Your task to perform on an android device: turn on wifi Image 0: 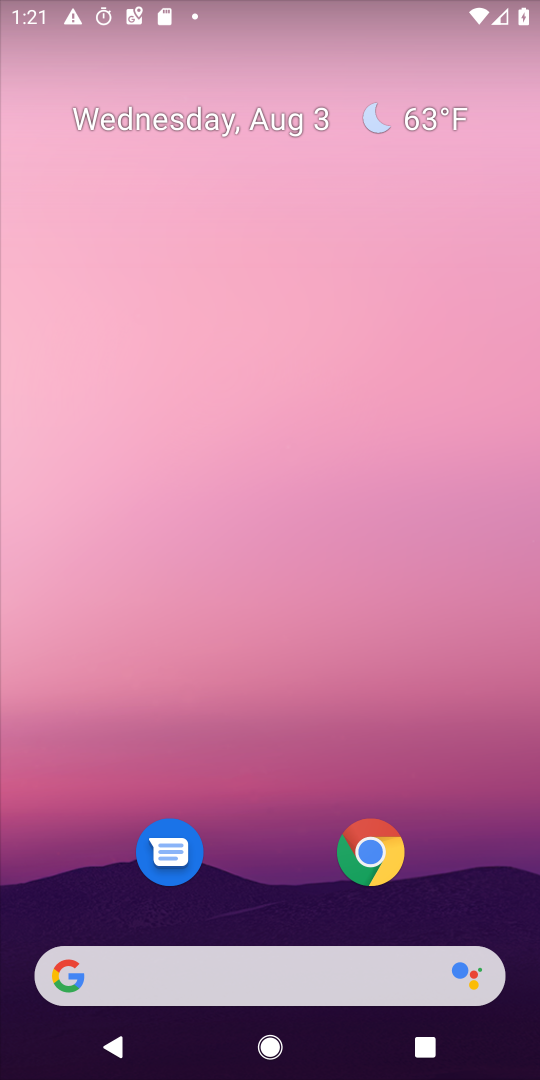
Step 0: drag from (511, 881) to (289, 110)
Your task to perform on an android device: turn on wifi Image 1: 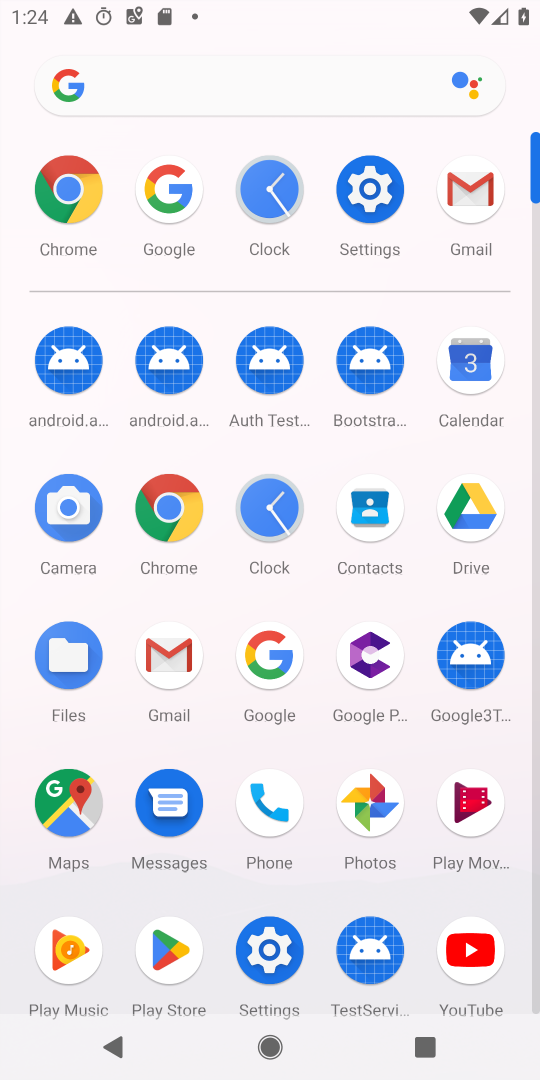
Step 1: task complete